Your task to perform on an android device: snooze an email in the gmail app Image 0: 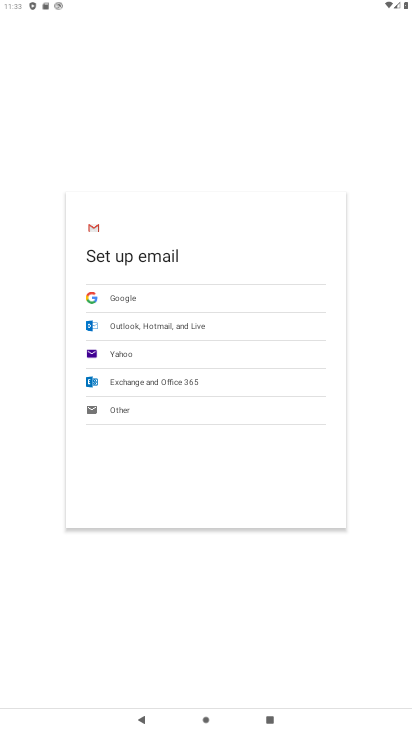
Step 0: press home button
Your task to perform on an android device: snooze an email in the gmail app Image 1: 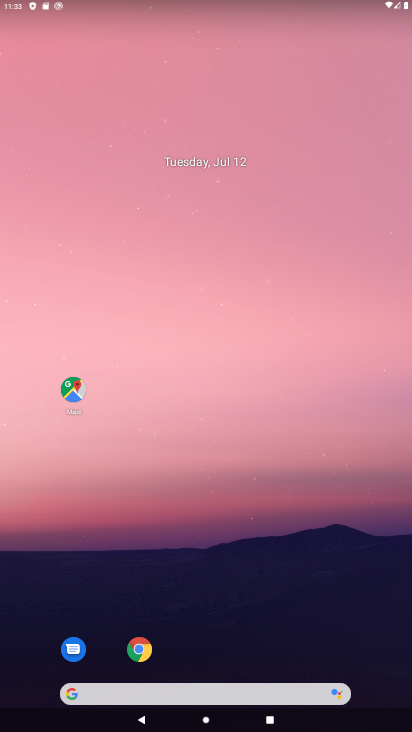
Step 1: drag from (277, 652) to (311, 40)
Your task to perform on an android device: snooze an email in the gmail app Image 2: 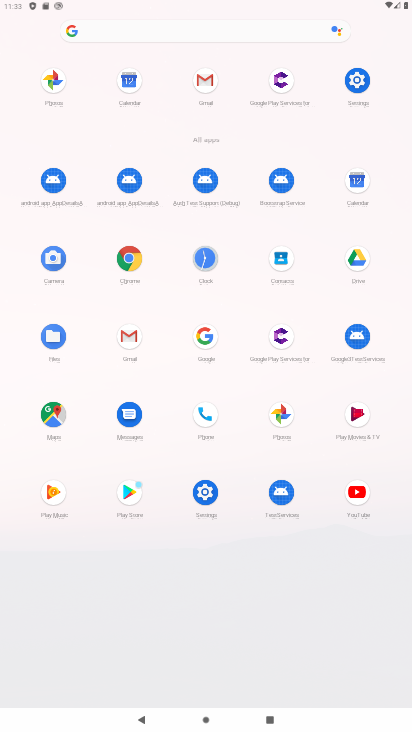
Step 2: click (128, 331)
Your task to perform on an android device: snooze an email in the gmail app Image 3: 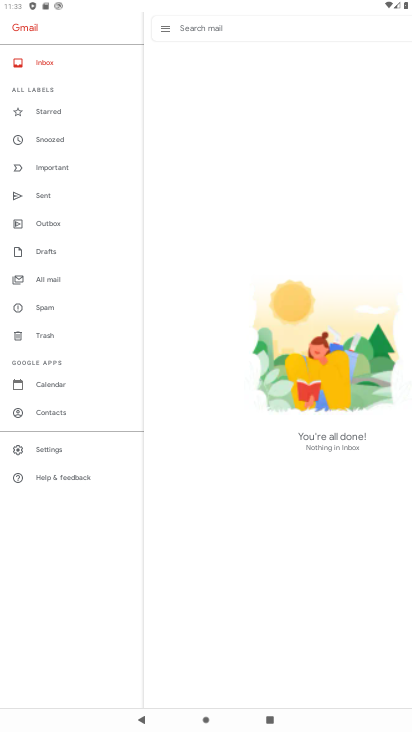
Step 3: click (56, 284)
Your task to perform on an android device: snooze an email in the gmail app Image 4: 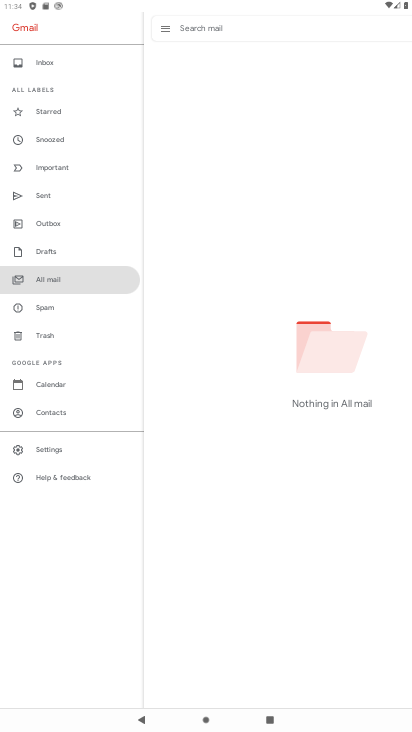
Step 4: task complete